Your task to perform on an android device: Search for alienware aurora on ebay.com, select the first entry, add it to the cart, then select checkout. Image 0: 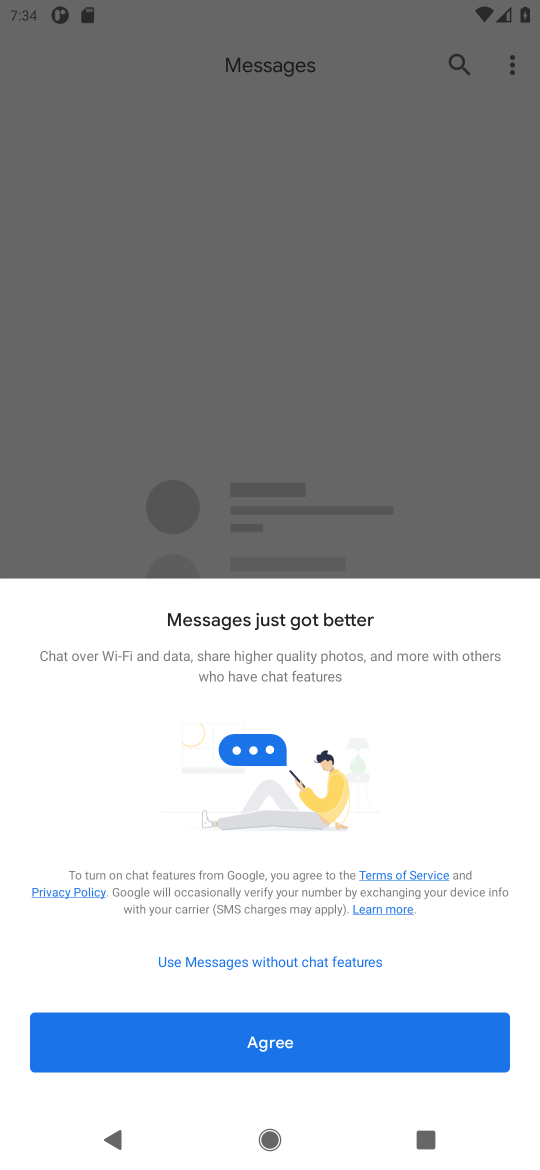
Step 0: press home button
Your task to perform on an android device: Search for alienware aurora on ebay.com, select the first entry, add it to the cart, then select checkout. Image 1: 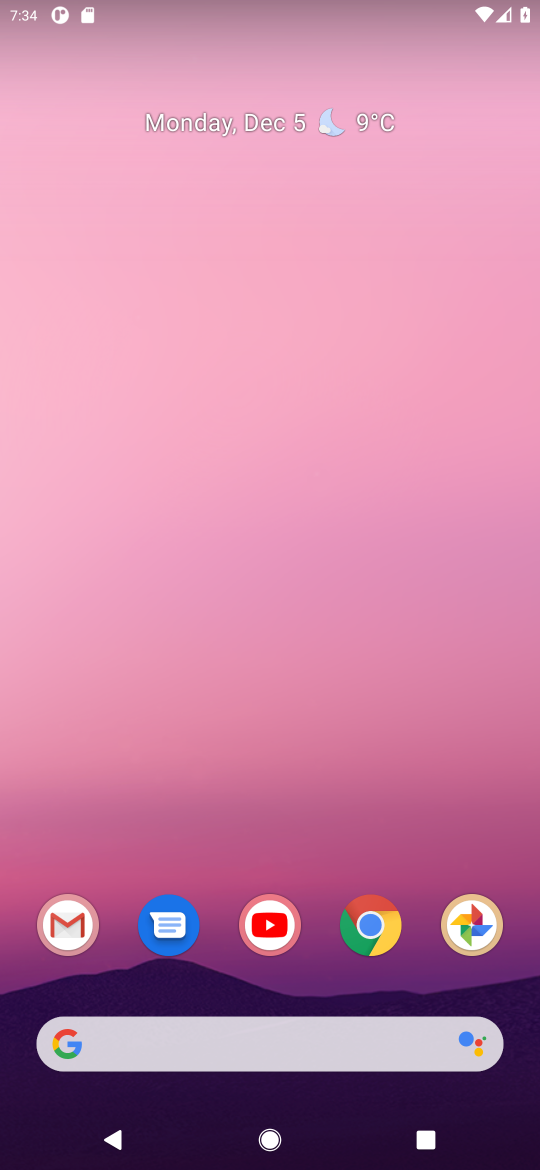
Step 1: click (368, 934)
Your task to perform on an android device: Search for alienware aurora on ebay.com, select the first entry, add it to the cart, then select checkout. Image 2: 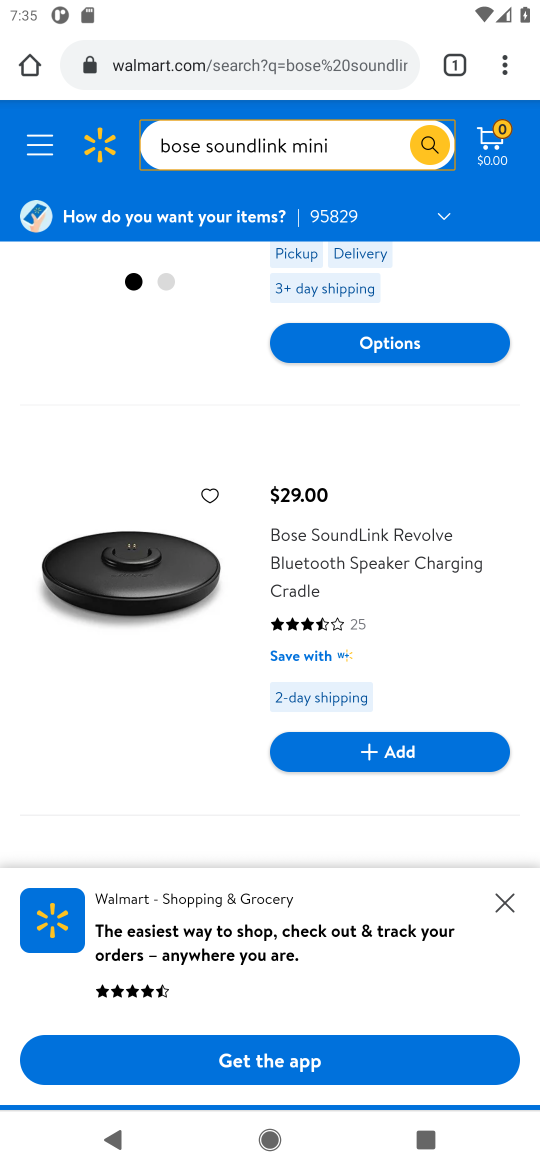
Step 2: click (262, 69)
Your task to perform on an android device: Search for alienware aurora on ebay.com, select the first entry, add it to the cart, then select checkout. Image 3: 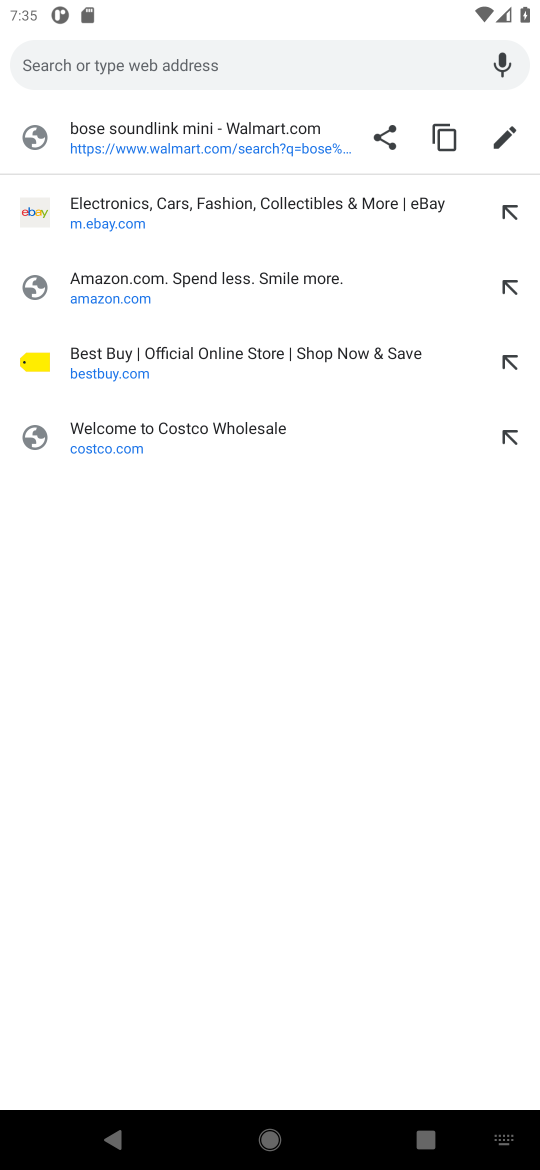
Step 3: click (105, 222)
Your task to perform on an android device: Search for alienware aurora on ebay.com, select the first entry, add it to the cart, then select checkout. Image 4: 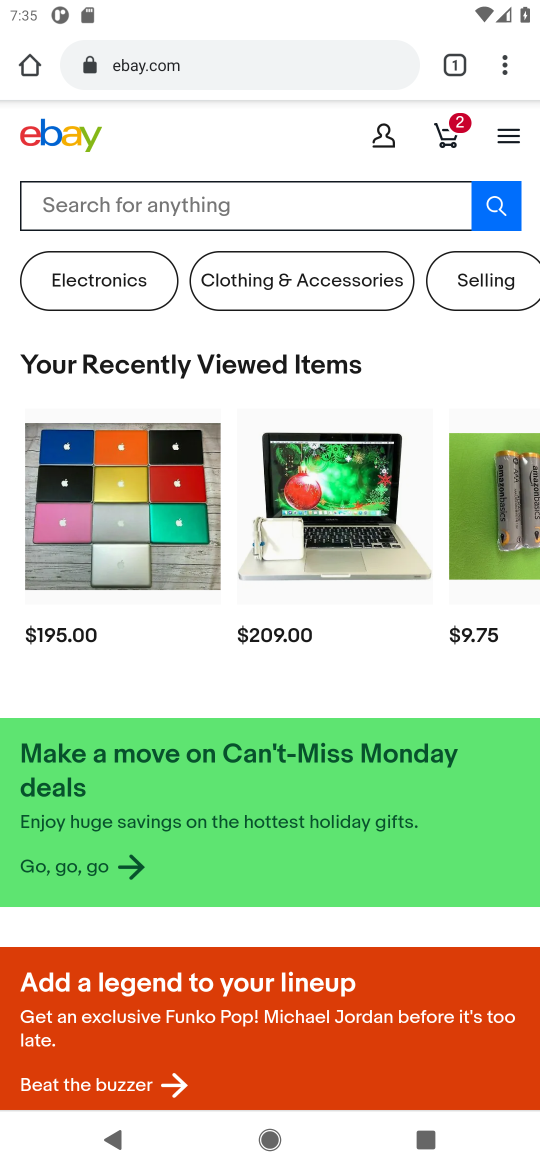
Step 4: click (120, 211)
Your task to perform on an android device: Search for alienware aurora on ebay.com, select the first entry, add it to the cart, then select checkout. Image 5: 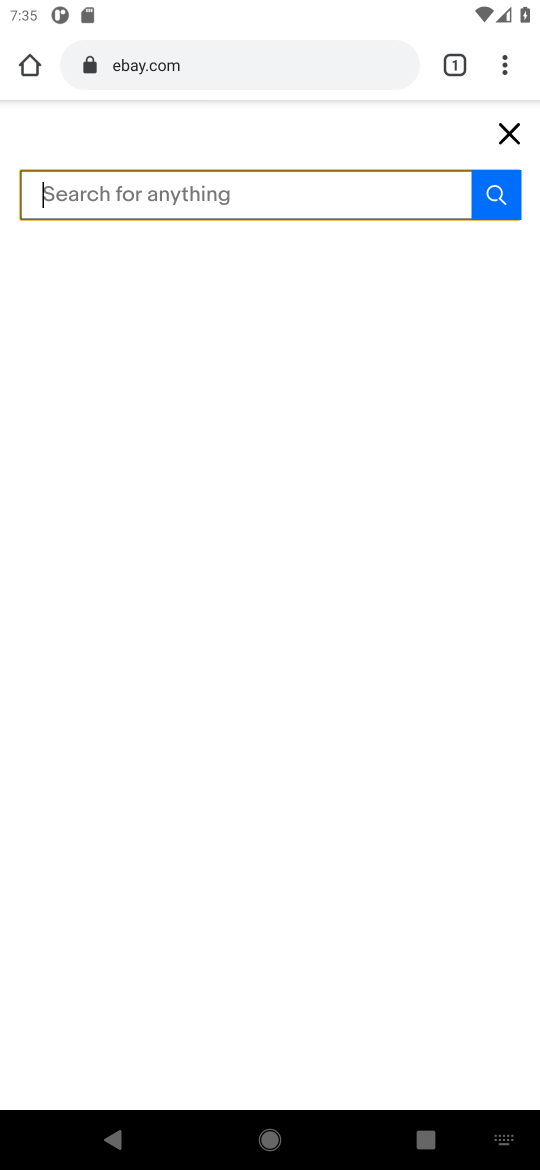
Step 5: type "alienware aurora "
Your task to perform on an android device: Search for alienware aurora on ebay.com, select the first entry, add it to the cart, then select checkout. Image 6: 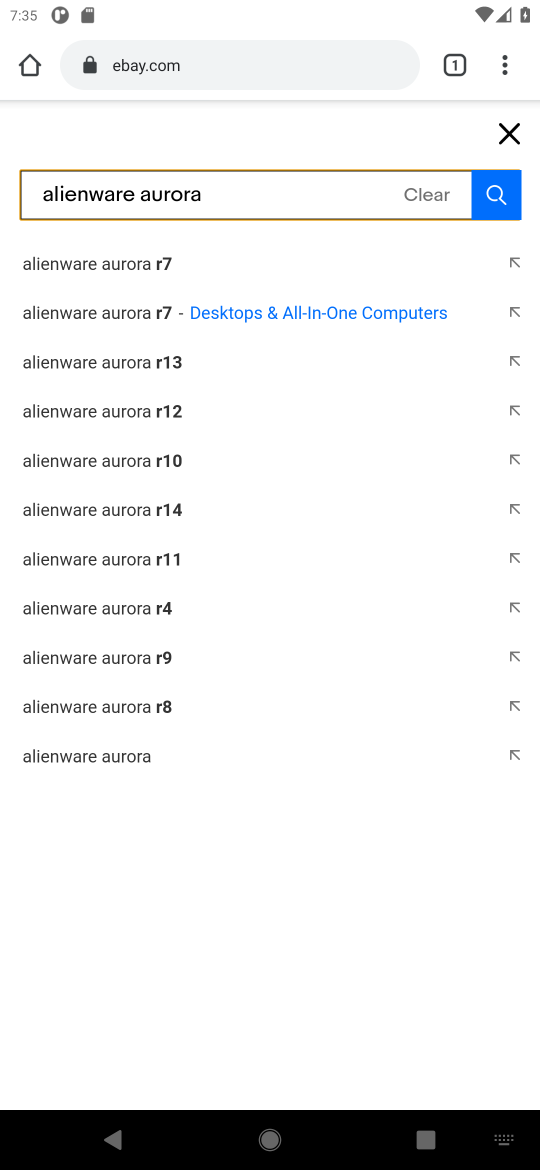
Step 6: click (94, 763)
Your task to perform on an android device: Search for alienware aurora on ebay.com, select the first entry, add it to the cart, then select checkout. Image 7: 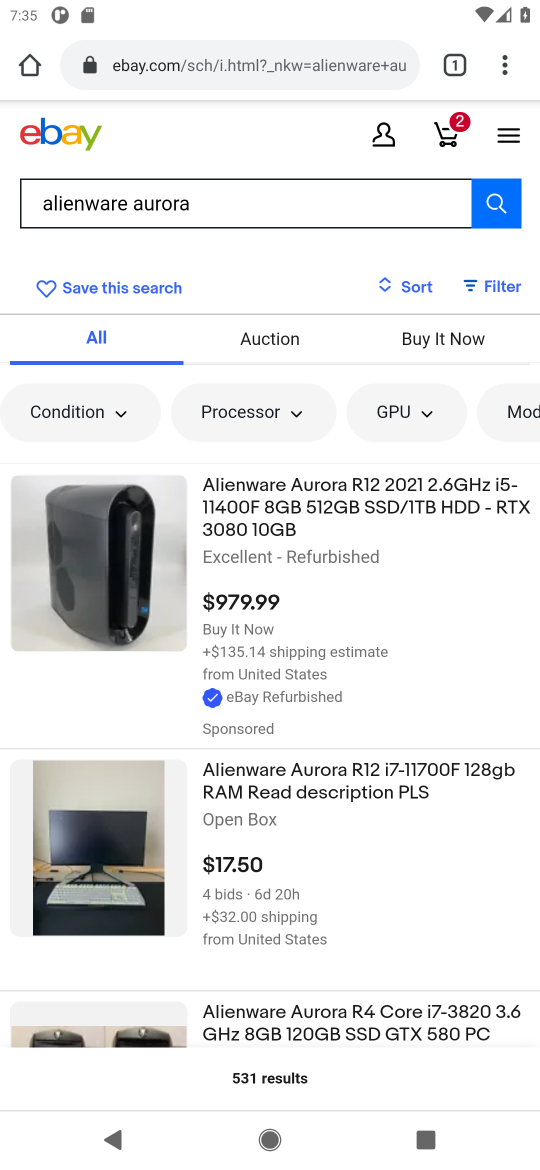
Step 7: click (240, 526)
Your task to perform on an android device: Search for alienware aurora on ebay.com, select the first entry, add it to the cart, then select checkout. Image 8: 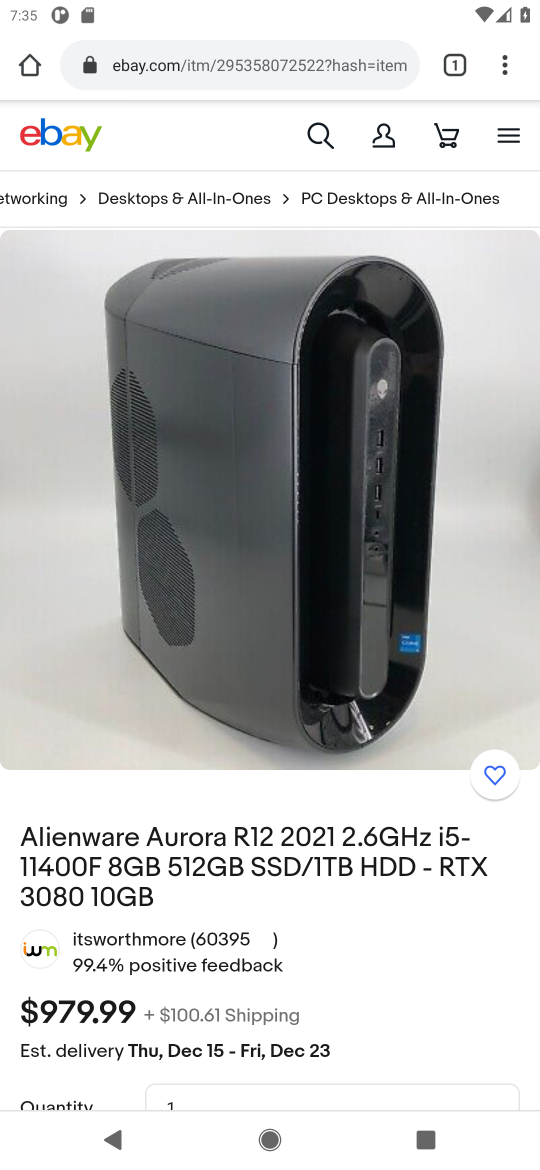
Step 8: drag from (265, 852) to (274, 415)
Your task to perform on an android device: Search for alienware aurora on ebay.com, select the first entry, add it to the cart, then select checkout. Image 9: 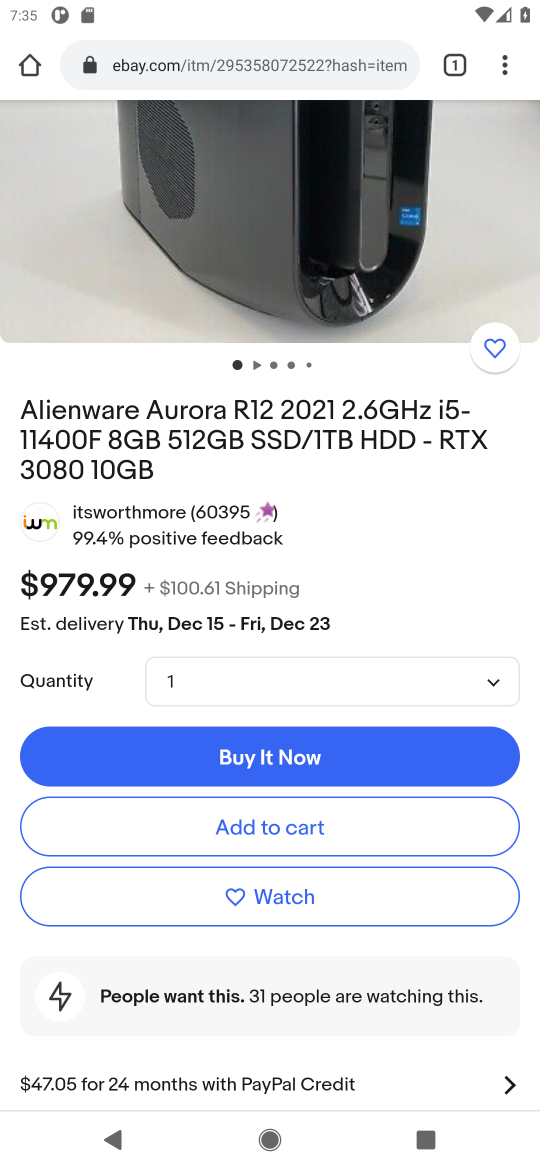
Step 9: click (277, 820)
Your task to perform on an android device: Search for alienware aurora on ebay.com, select the first entry, add it to the cart, then select checkout. Image 10: 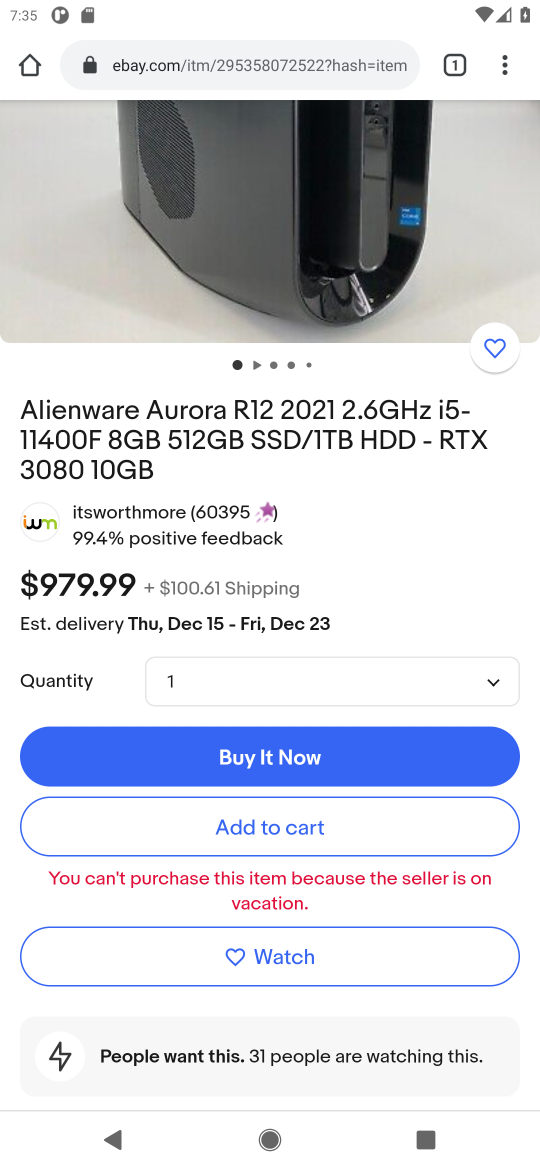
Step 10: task complete